Your task to perform on an android device: set the stopwatch Image 0: 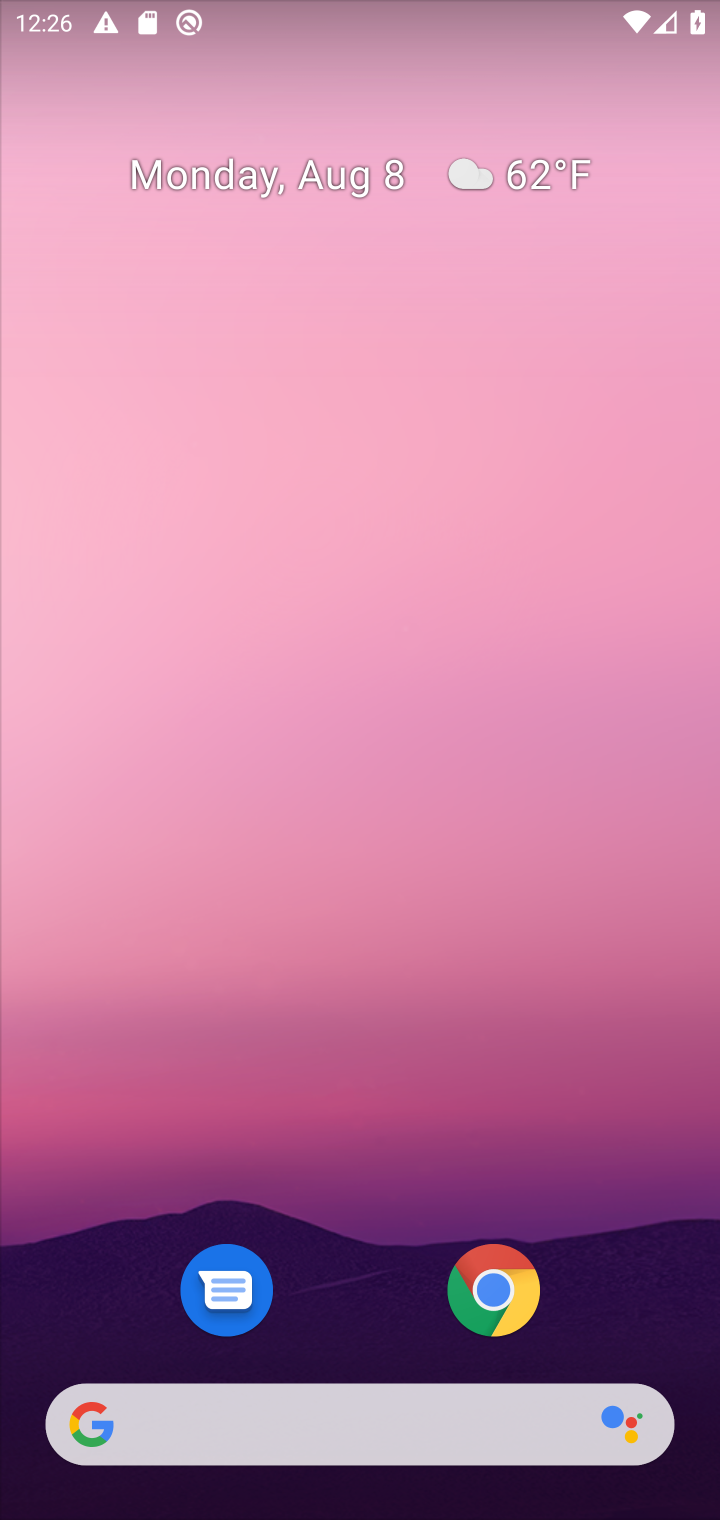
Step 0: drag from (325, 1321) to (413, 321)
Your task to perform on an android device: set the stopwatch Image 1: 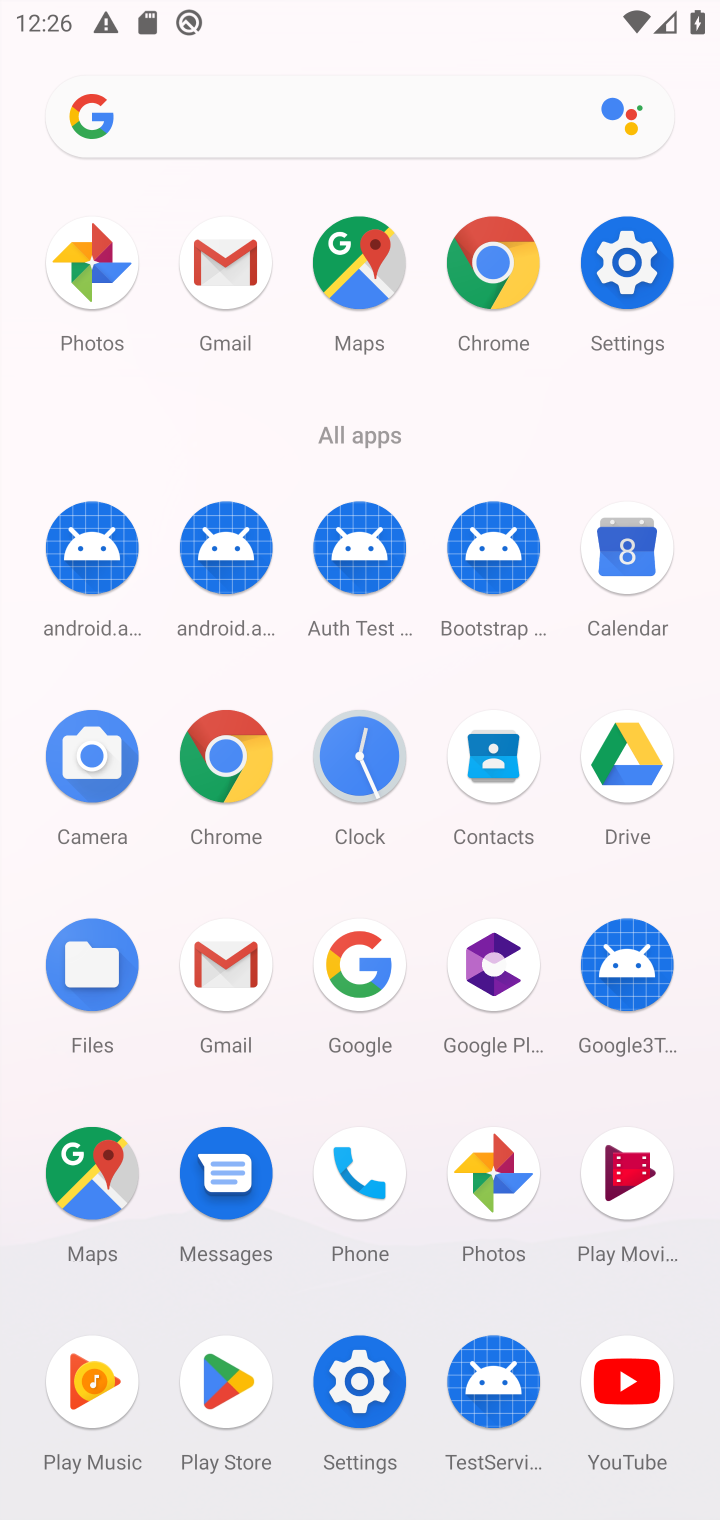
Step 1: click (365, 811)
Your task to perform on an android device: set the stopwatch Image 2: 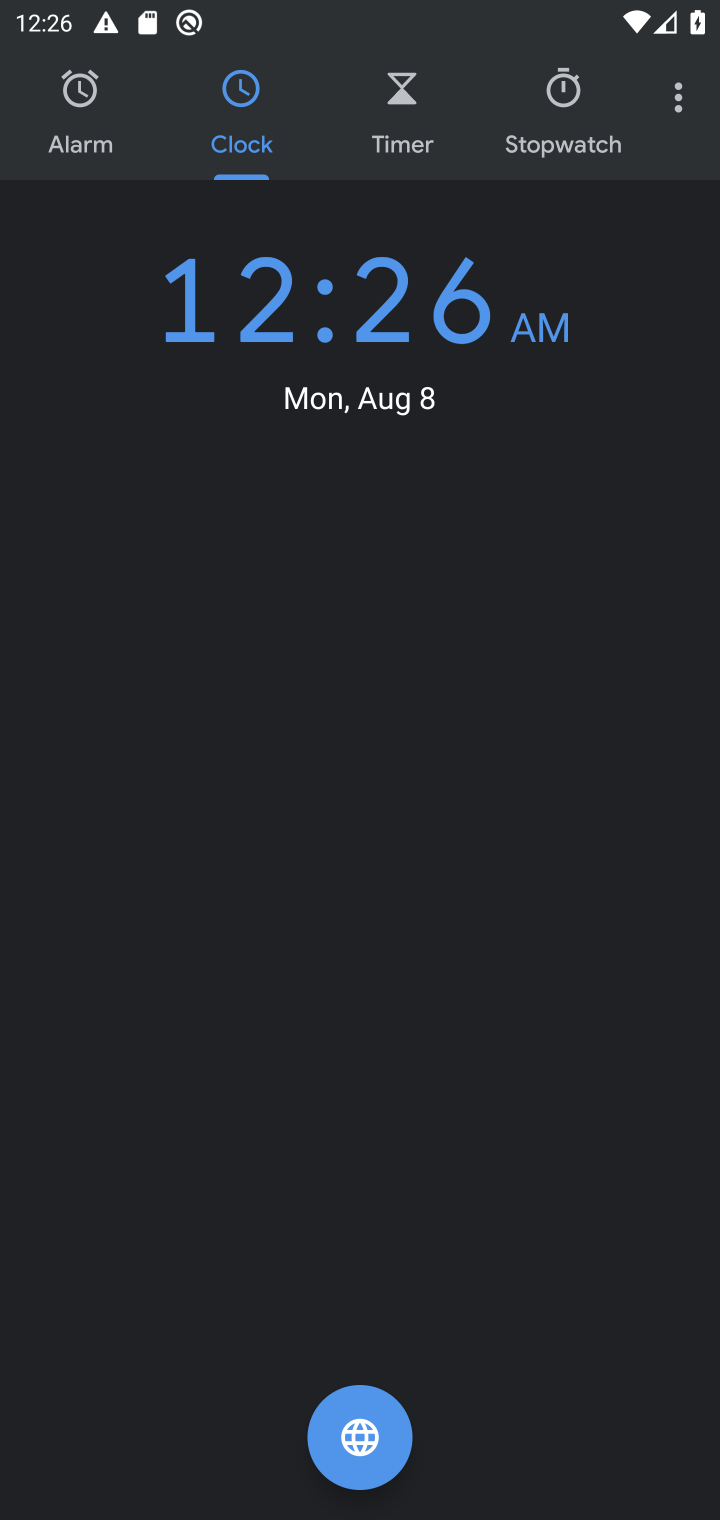
Step 2: click (558, 143)
Your task to perform on an android device: set the stopwatch Image 3: 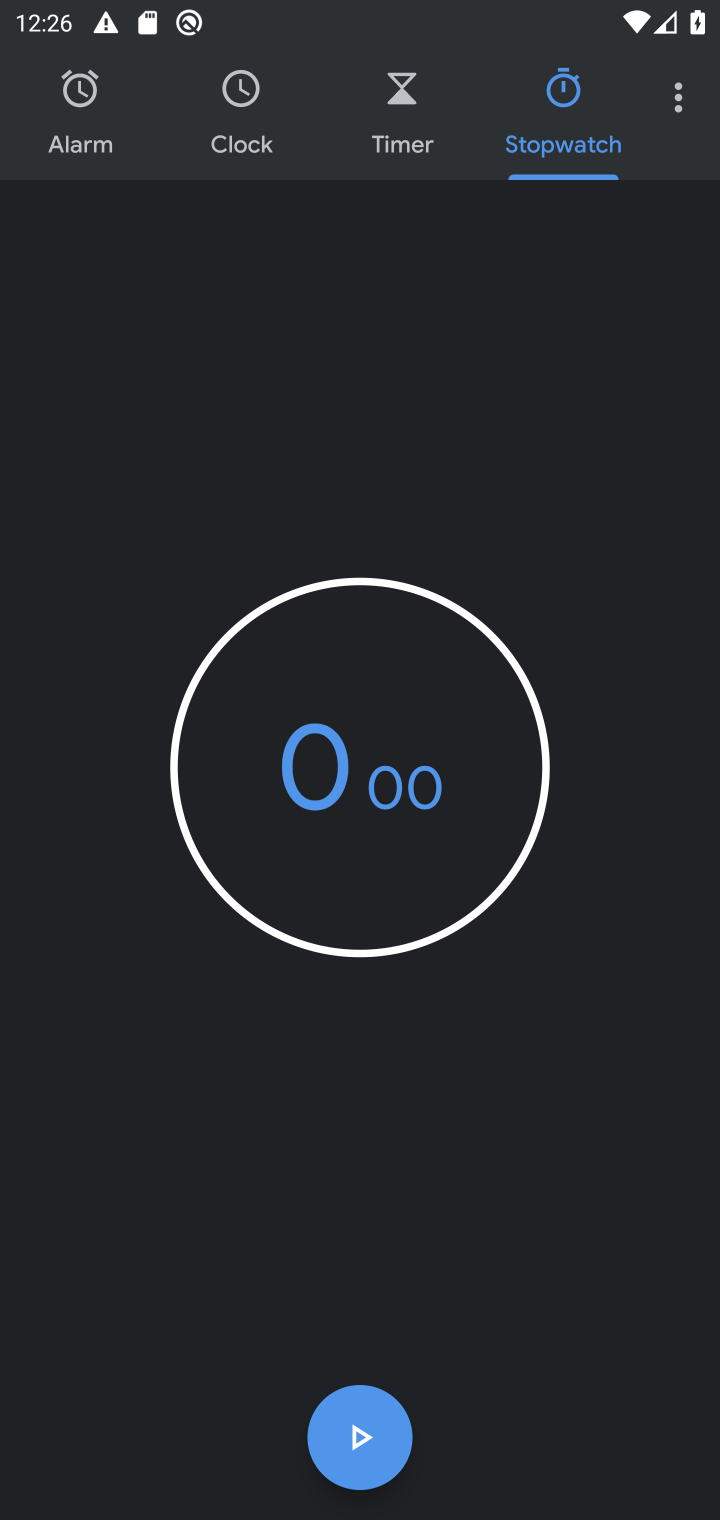
Step 3: click (373, 1416)
Your task to perform on an android device: set the stopwatch Image 4: 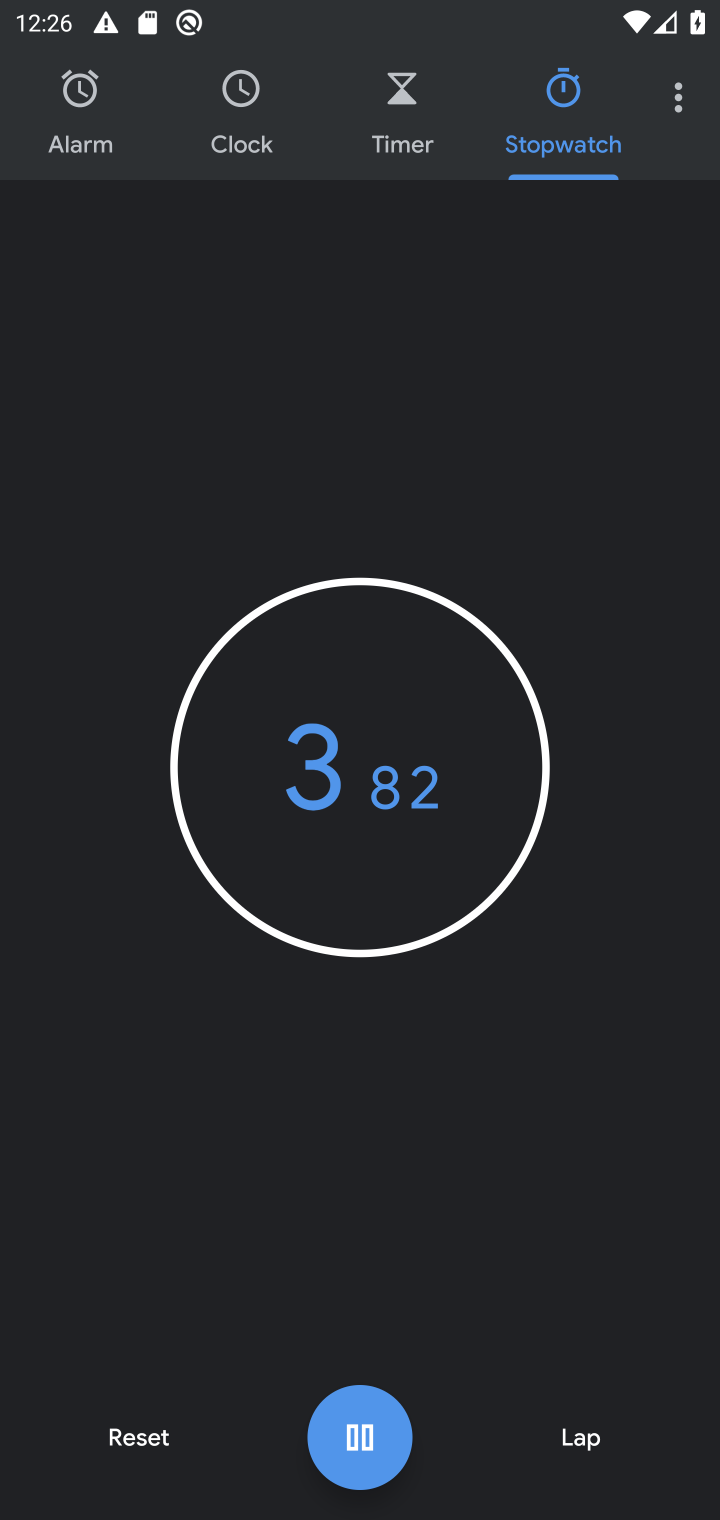
Step 4: click (369, 1438)
Your task to perform on an android device: set the stopwatch Image 5: 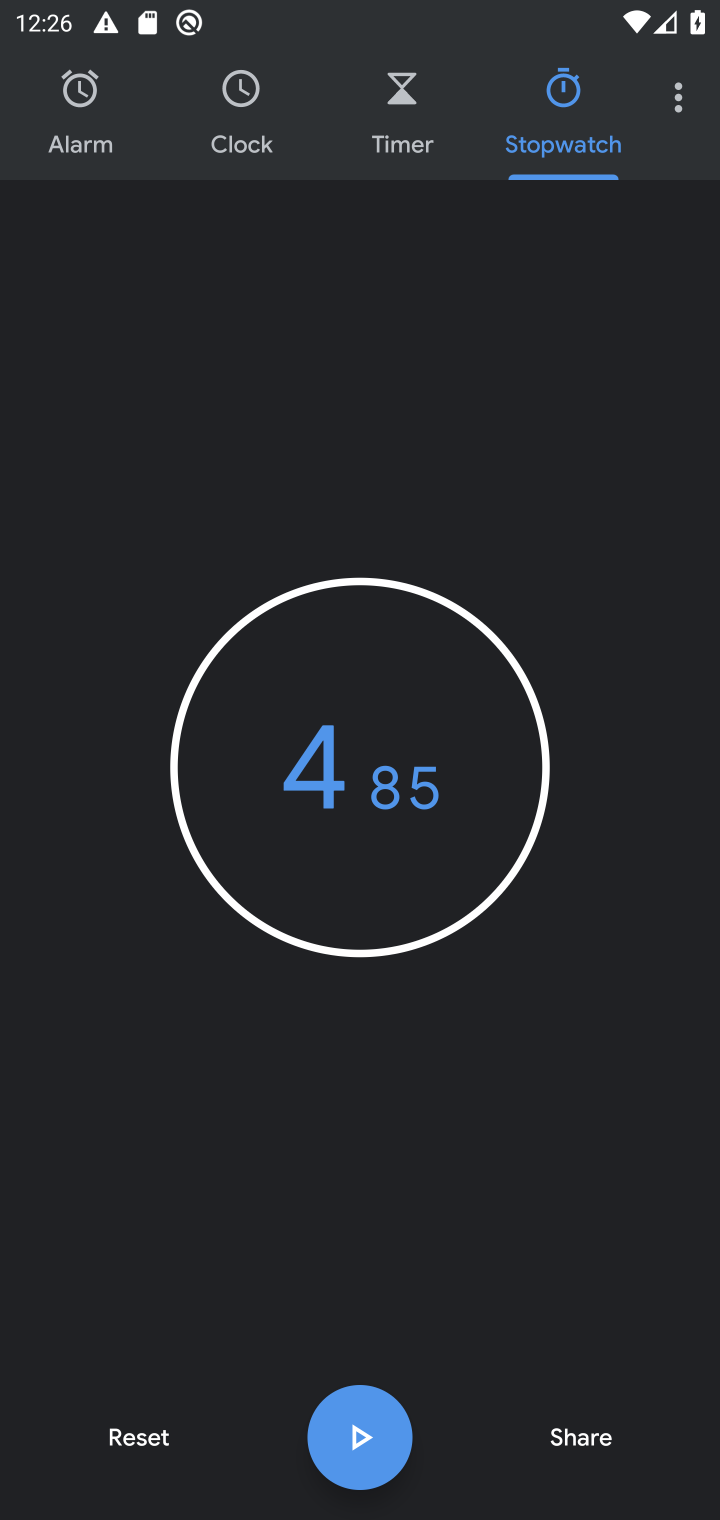
Step 5: task complete